Your task to perform on an android device: Search for flights from Barcelona to Boston Image 0: 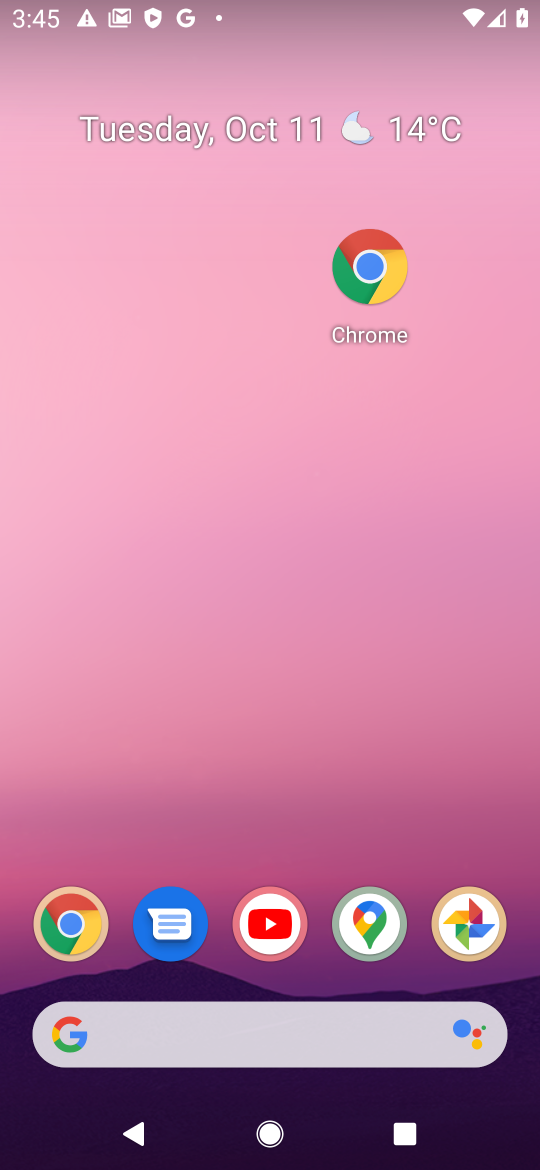
Step 0: click (79, 933)
Your task to perform on an android device: Search for flights from Barcelona to Boston Image 1: 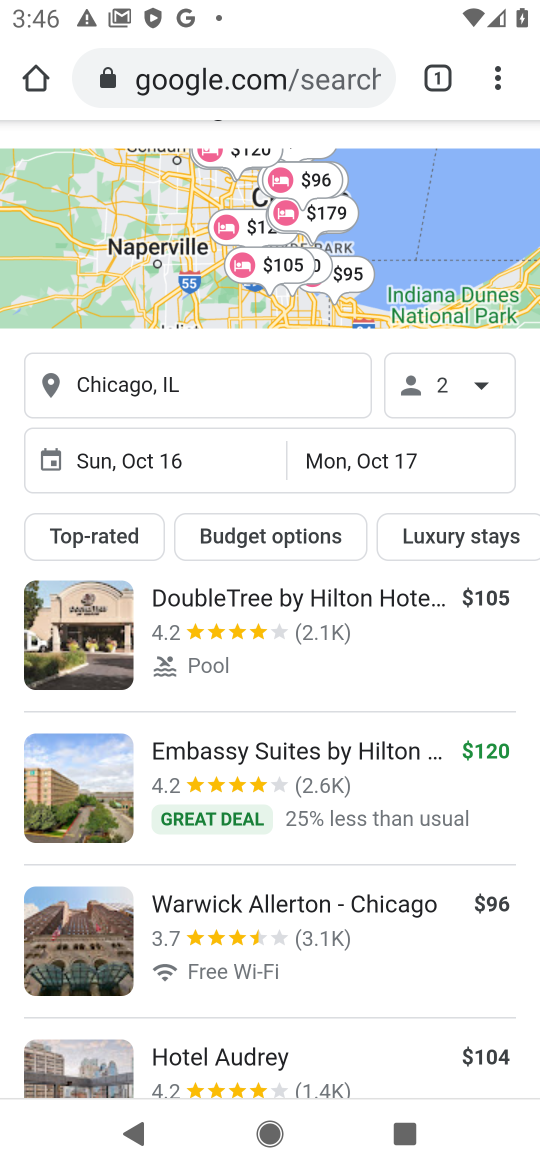
Step 1: click (142, 97)
Your task to perform on an android device: Search for flights from Barcelona to Boston Image 2: 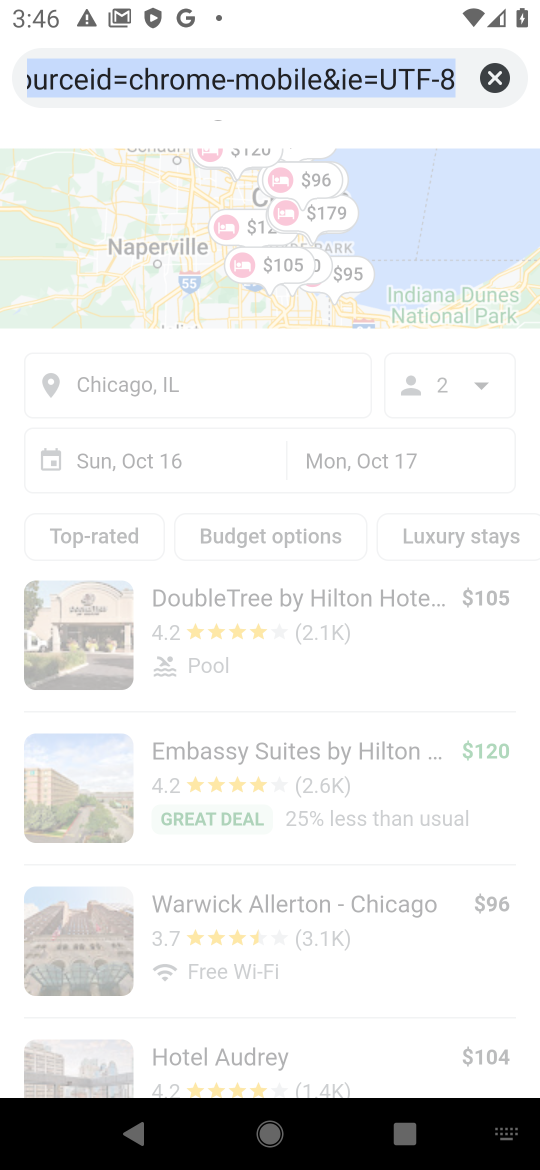
Step 2: type " flights from Barcelona to Boston"
Your task to perform on an android device: Search for flights from Barcelona to Boston Image 3: 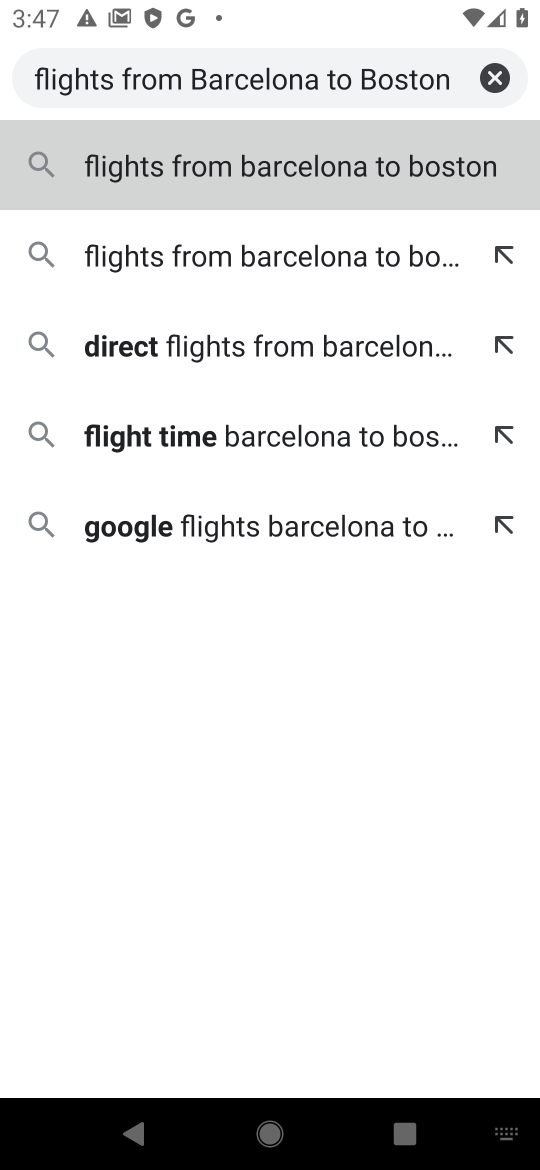
Step 3: click (416, 174)
Your task to perform on an android device: Search for flights from Barcelona to Boston Image 4: 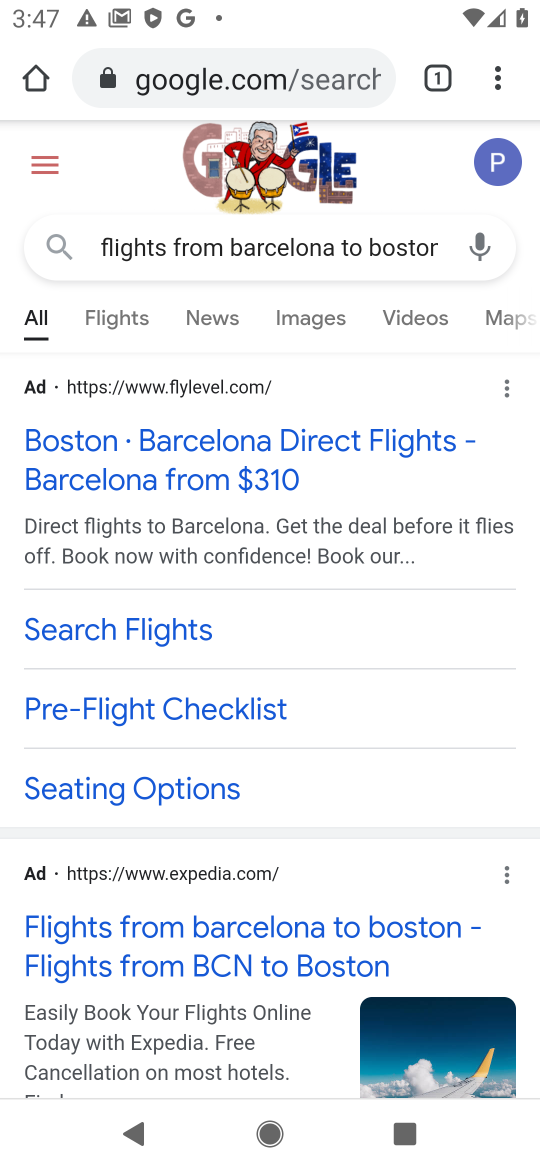
Step 4: click (106, 320)
Your task to perform on an android device: Search for flights from Barcelona to Boston Image 5: 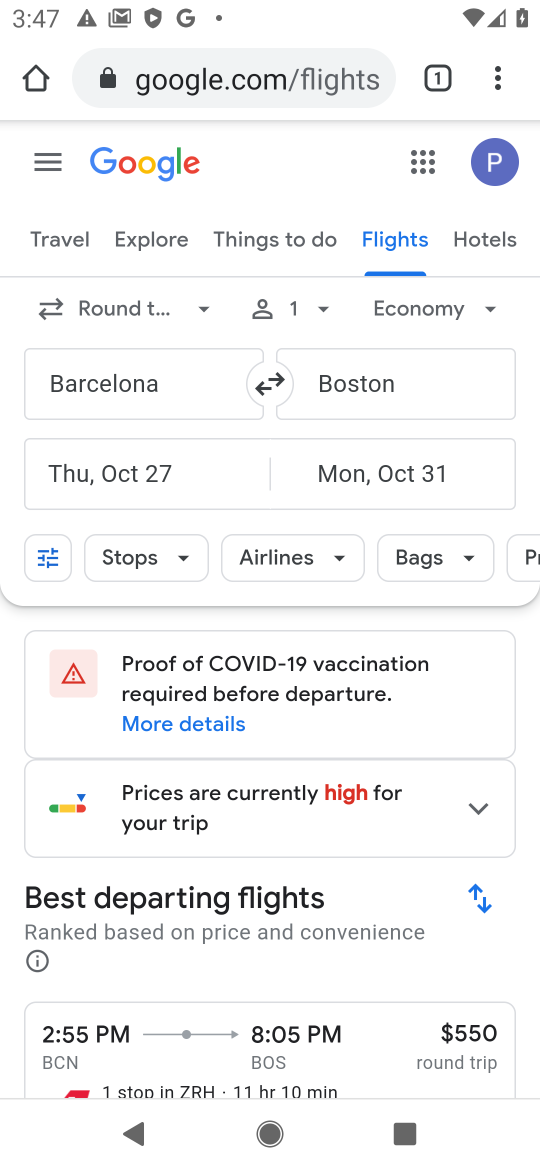
Step 5: task complete